Your task to perform on an android device: toggle show notifications on the lock screen Image 0: 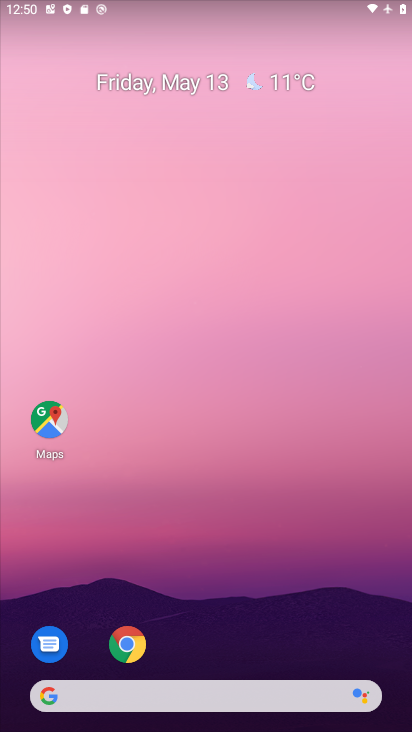
Step 0: drag from (233, 724) to (242, 125)
Your task to perform on an android device: toggle show notifications on the lock screen Image 1: 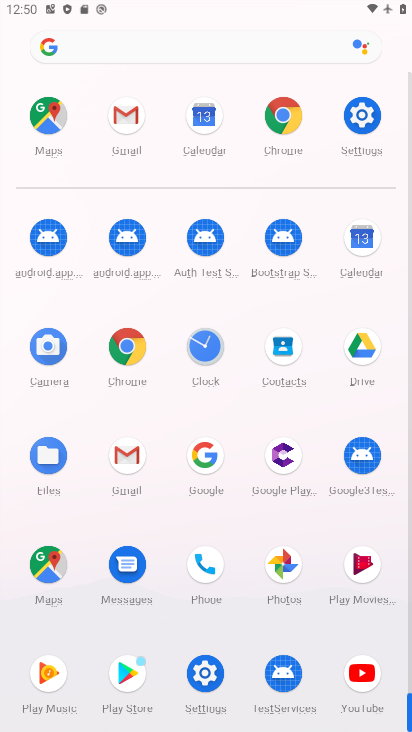
Step 1: click (363, 119)
Your task to perform on an android device: toggle show notifications on the lock screen Image 2: 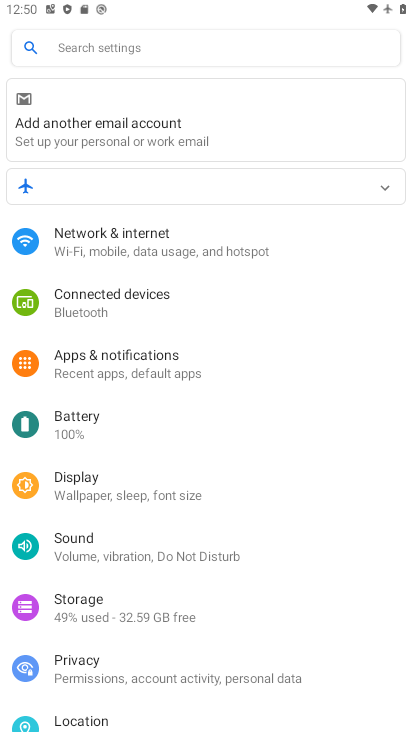
Step 2: click (107, 356)
Your task to perform on an android device: toggle show notifications on the lock screen Image 3: 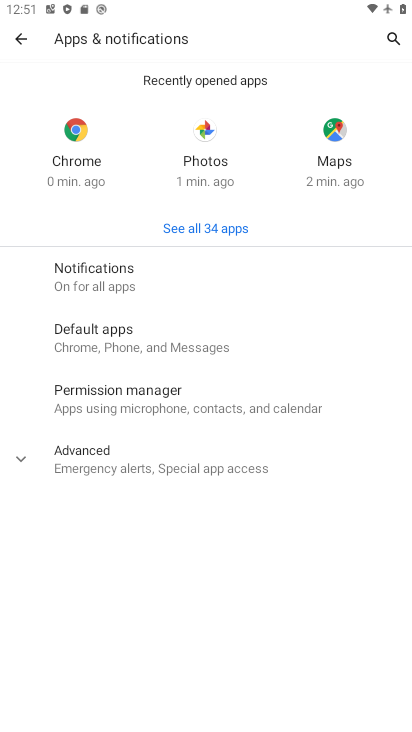
Step 3: click (103, 272)
Your task to perform on an android device: toggle show notifications on the lock screen Image 4: 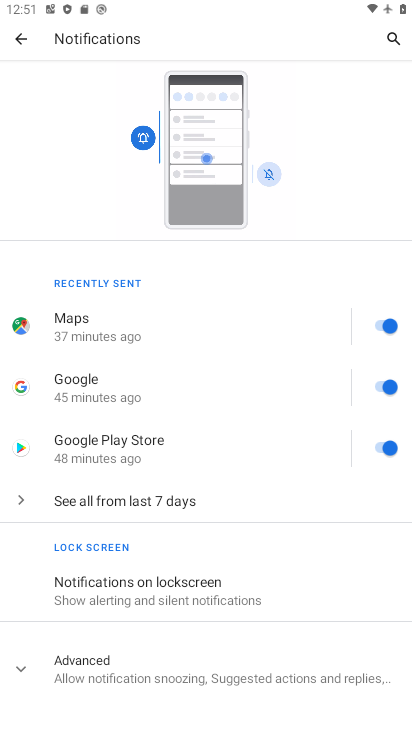
Step 4: task complete